Your task to perform on an android device: open sync settings in chrome Image 0: 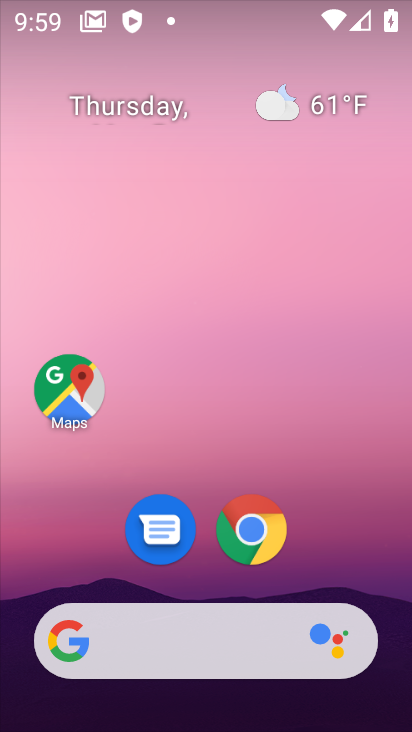
Step 0: click (254, 530)
Your task to perform on an android device: open sync settings in chrome Image 1: 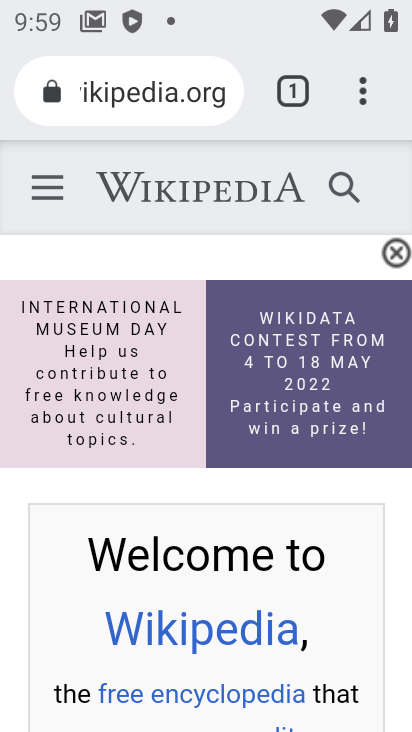
Step 1: click (356, 97)
Your task to perform on an android device: open sync settings in chrome Image 2: 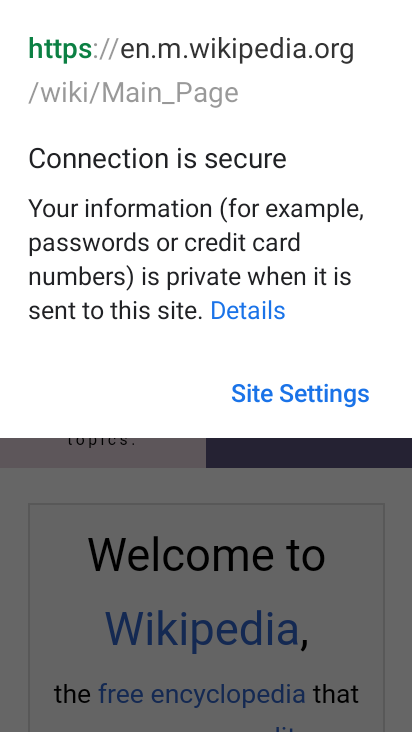
Step 2: click (305, 386)
Your task to perform on an android device: open sync settings in chrome Image 3: 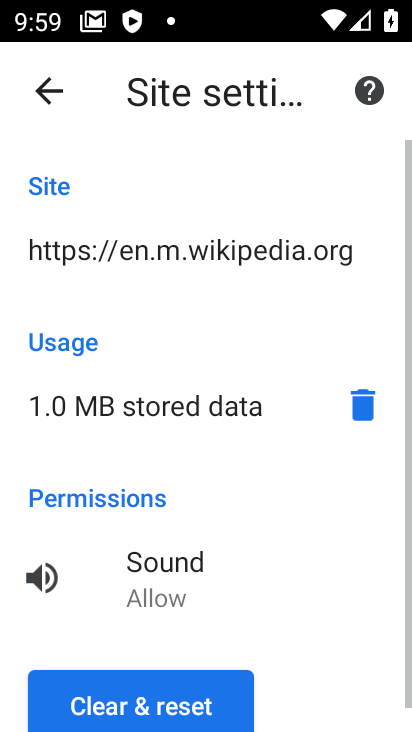
Step 3: click (198, 694)
Your task to perform on an android device: open sync settings in chrome Image 4: 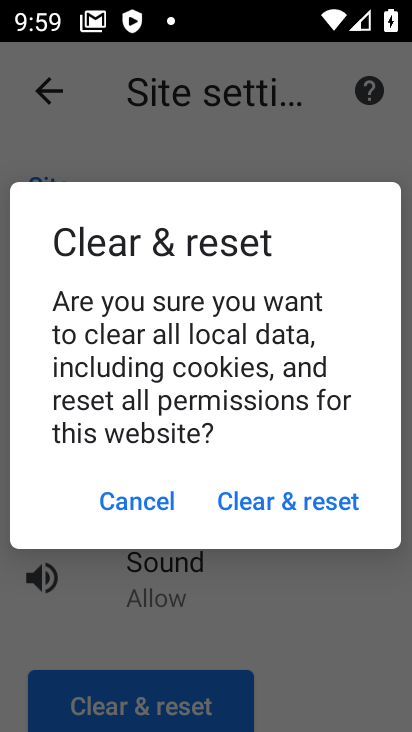
Step 4: click (263, 498)
Your task to perform on an android device: open sync settings in chrome Image 5: 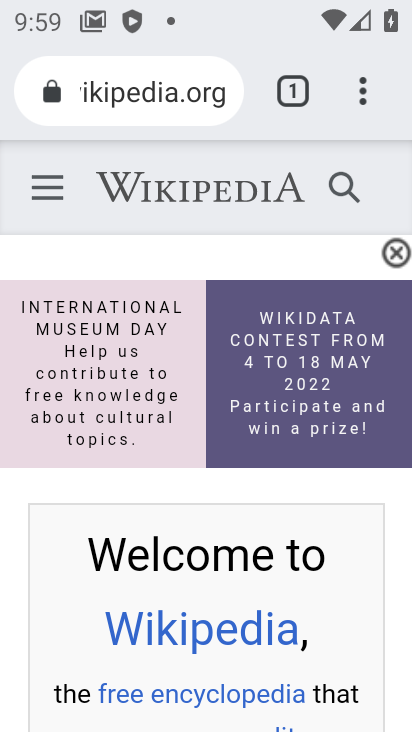
Step 5: click (356, 85)
Your task to perform on an android device: open sync settings in chrome Image 6: 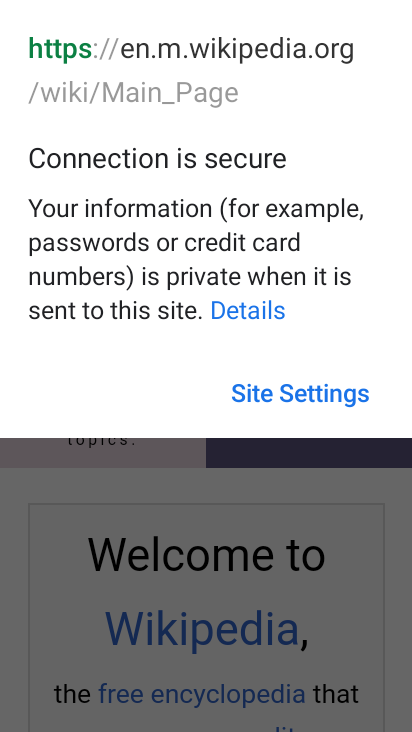
Step 6: click (317, 394)
Your task to perform on an android device: open sync settings in chrome Image 7: 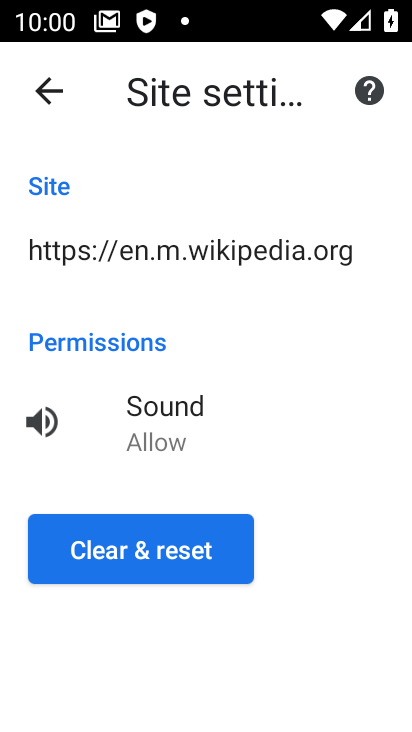
Step 7: click (157, 563)
Your task to perform on an android device: open sync settings in chrome Image 8: 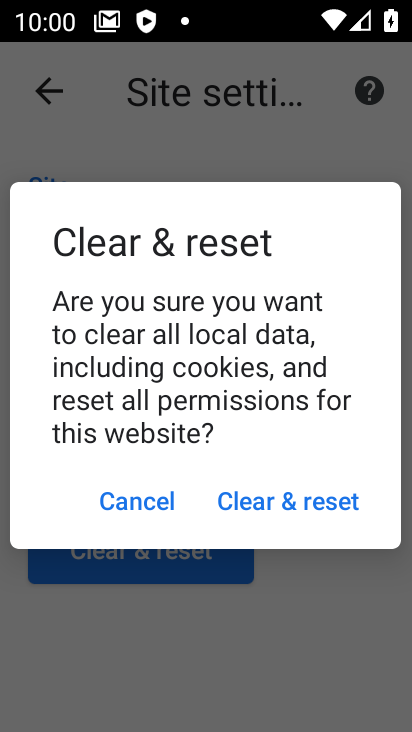
Step 8: click (262, 504)
Your task to perform on an android device: open sync settings in chrome Image 9: 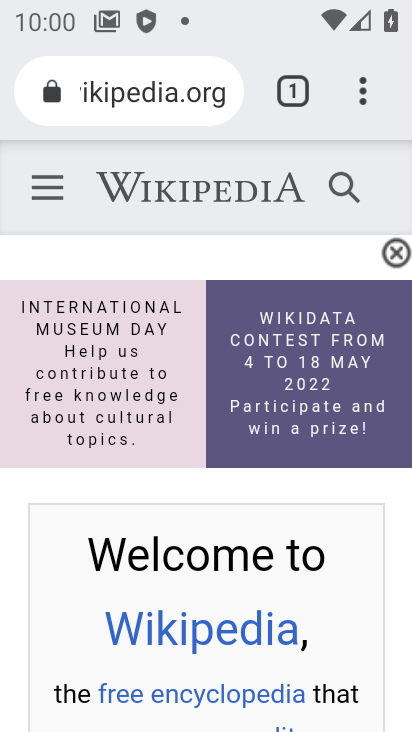
Step 9: click (357, 82)
Your task to perform on an android device: open sync settings in chrome Image 10: 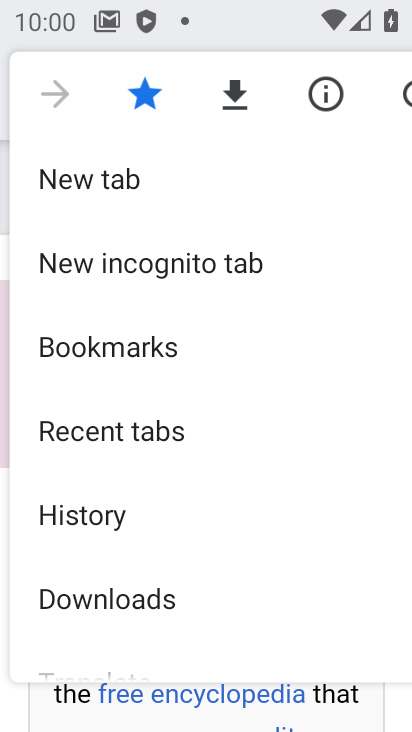
Step 10: drag from (300, 624) to (308, 347)
Your task to perform on an android device: open sync settings in chrome Image 11: 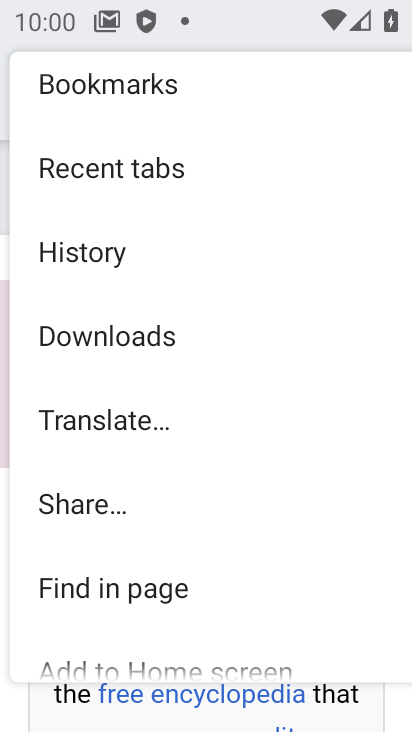
Step 11: drag from (286, 585) to (260, 293)
Your task to perform on an android device: open sync settings in chrome Image 12: 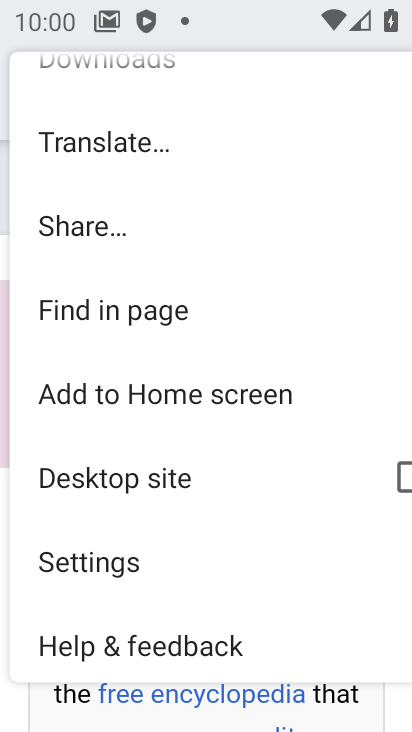
Step 12: click (107, 550)
Your task to perform on an android device: open sync settings in chrome Image 13: 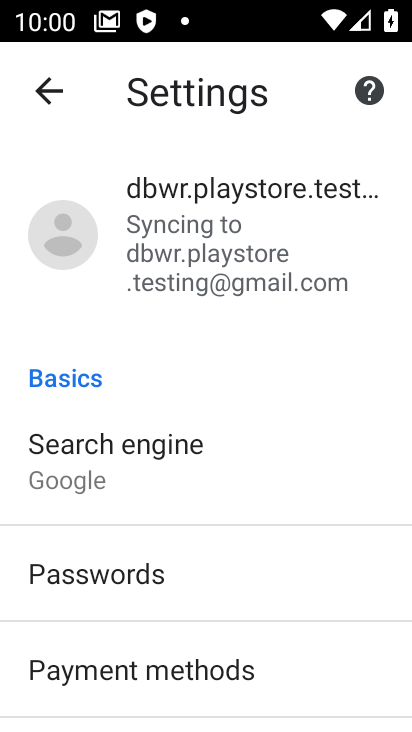
Step 13: drag from (304, 553) to (303, 318)
Your task to perform on an android device: open sync settings in chrome Image 14: 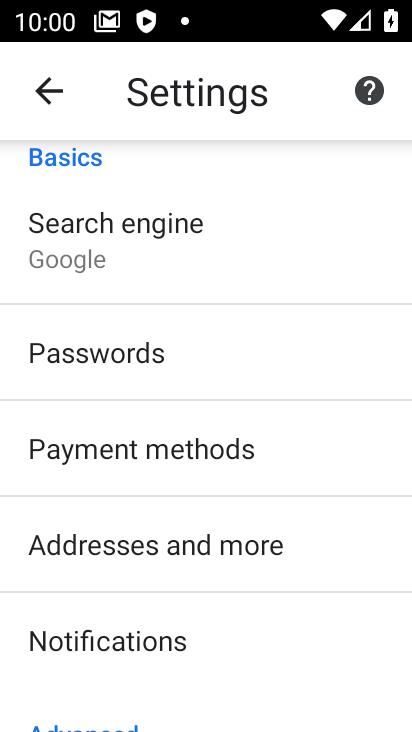
Step 14: drag from (296, 595) to (287, 271)
Your task to perform on an android device: open sync settings in chrome Image 15: 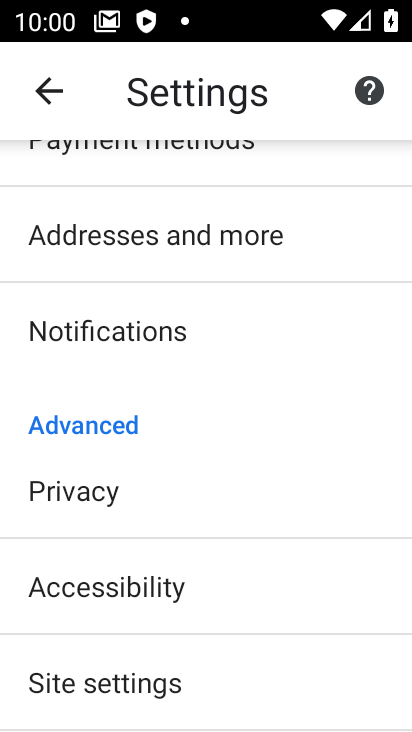
Step 15: drag from (307, 660) to (307, 384)
Your task to perform on an android device: open sync settings in chrome Image 16: 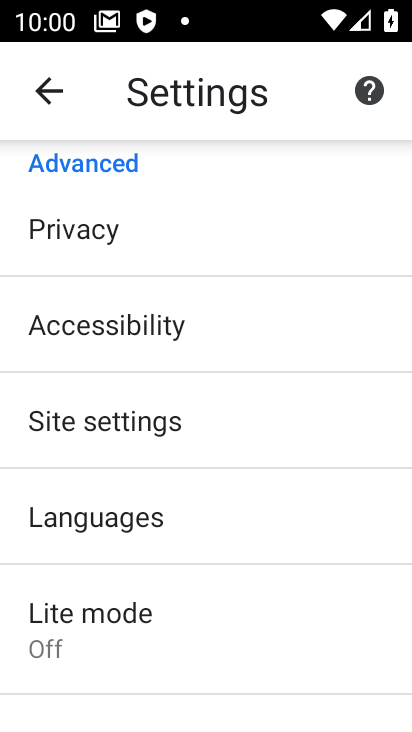
Step 16: drag from (252, 435) to (238, 319)
Your task to perform on an android device: open sync settings in chrome Image 17: 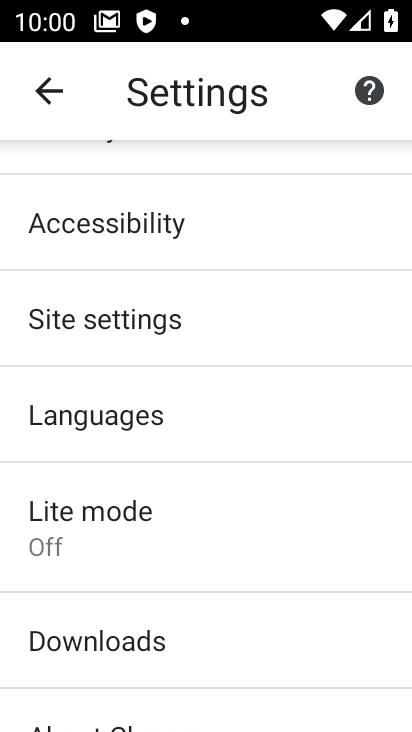
Step 17: click (85, 327)
Your task to perform on an android device: open sync settings in chrome Image 18: 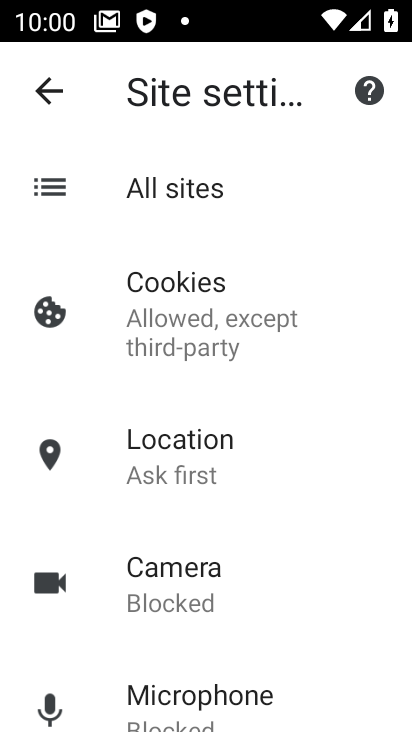
Step 18: drag from (287, 584) to (303, 242)
Your task to perform on an android device: open sync settings in chrome Image 19: 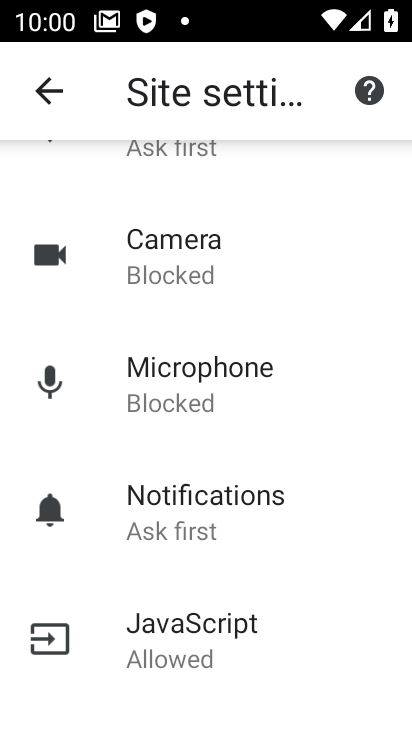
Step 19: drag from (301, 589) to (295, 379)
Your task to perform on an android device: open sync settings in chrome Image 20: 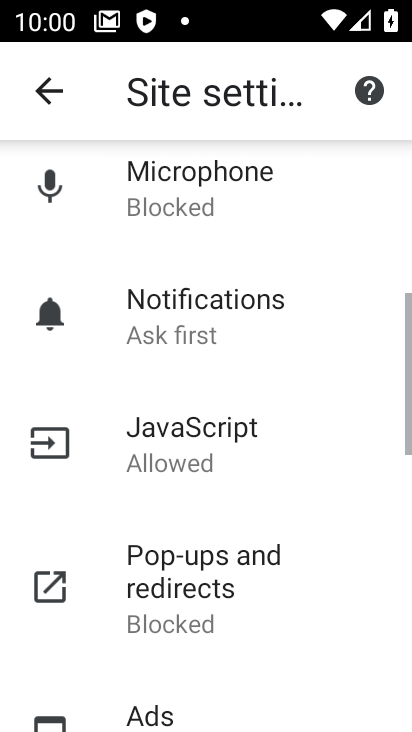
Step 20: drag from (257, 680) to (268, 302)
Your task to perform on an android device: open sync settings in chrome Image 21: 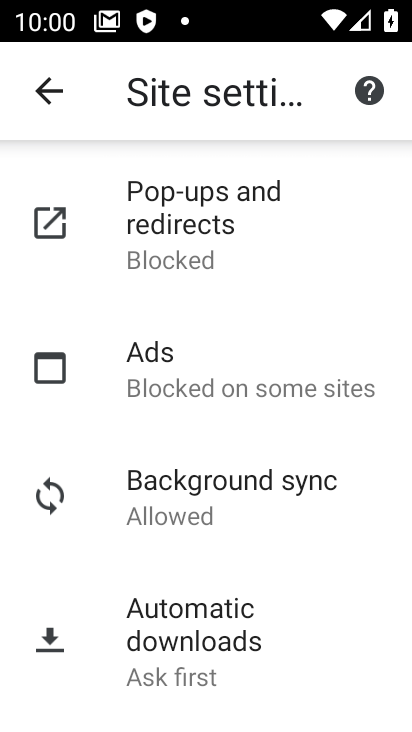
Step 21: click (206, 489)
Your task to perform on an android device: open sync settings in chrome Image 22: 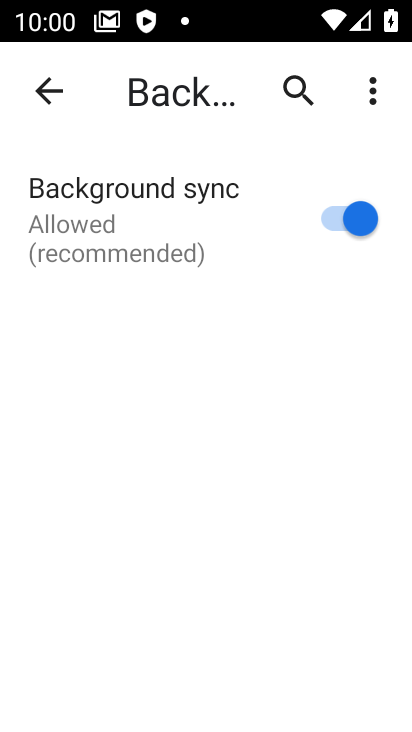
Step 22: task complete